Your task to perform on an android device: snooze an email in the gmail app Image 0: 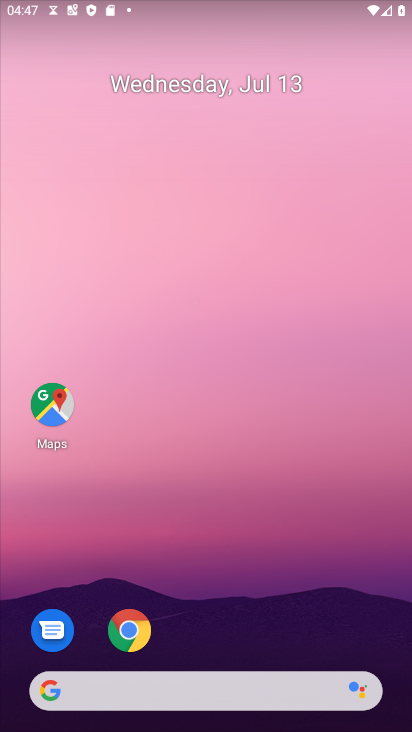
Step 0: drag from (311, 699) to (280, 153)
Your task to perform on an android device: snooze an email in the gmail app Image 1: 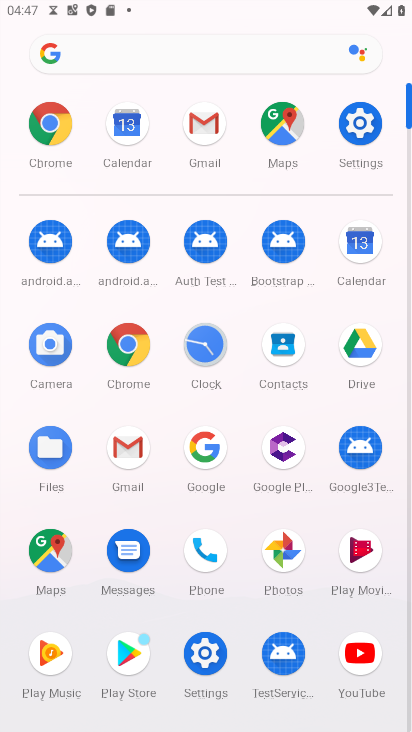
Step 1: click (137, 451)
Your task to perform on an android device: snooze an email in the gmail app Image 2: 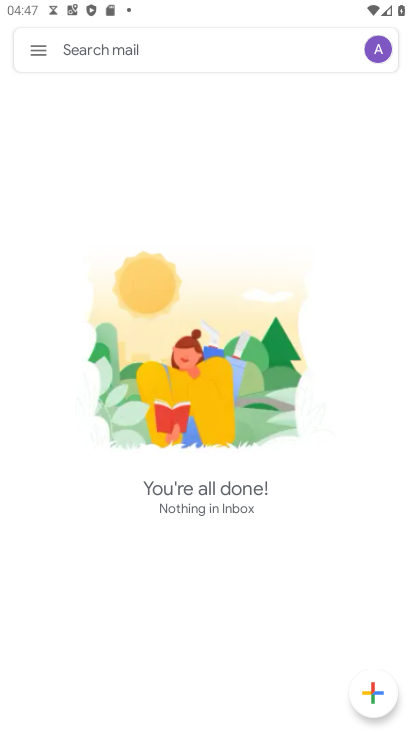
Step 2: click (30, 53)
Your task to perform on an android device: snooze an email in the gmail app Image 3: 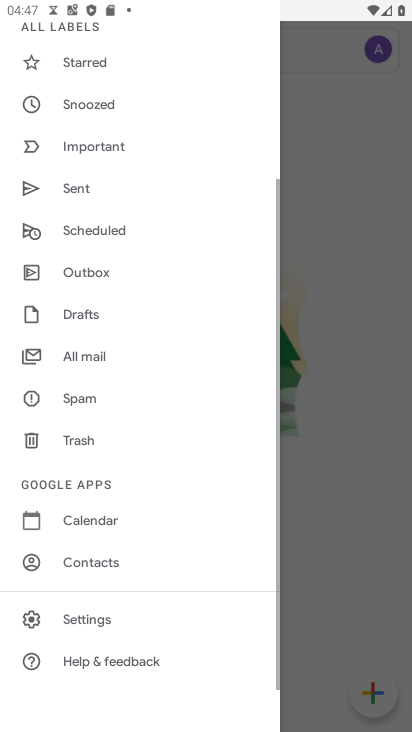
Step 3: click (107, 100)
Your task to perform on an android device: snooze an email in the gmail app Image 4: 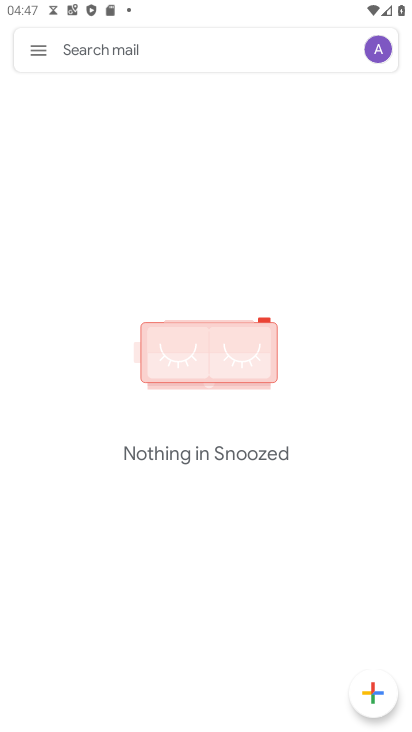
Step 4: task complete